Your task to perform on an android device: check out phone information Image 0: 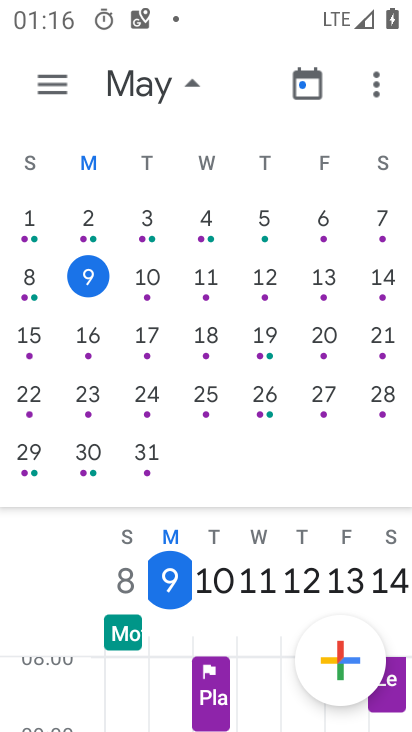
Step 0: press home button
Your task to perform on an android device: check out phone information Image 1: 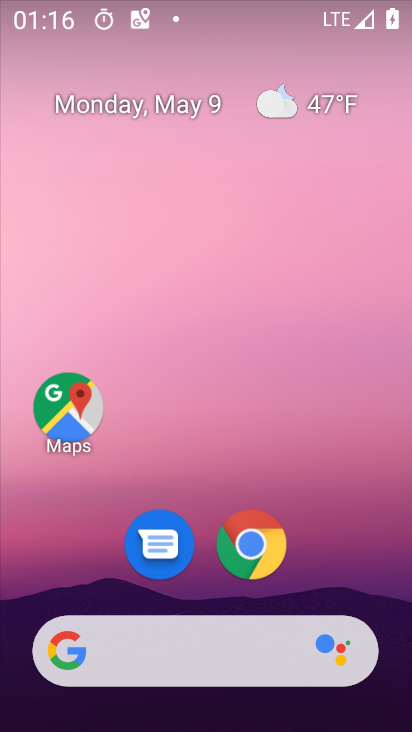
Step 1: drag from (299, 601) to (255, 11)
Your task to perform on an android device: check out phone information Image 2: 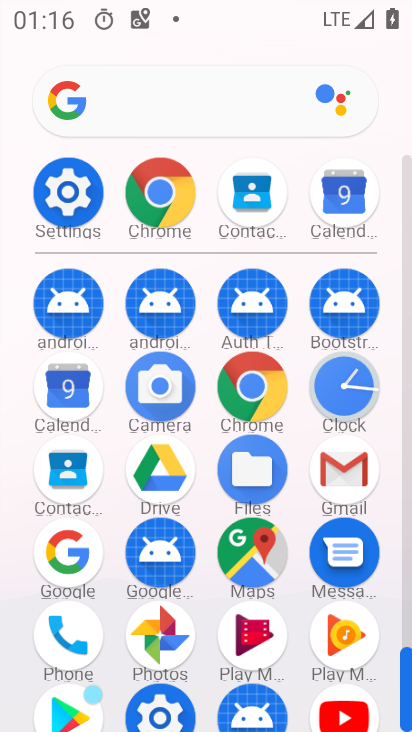
Step 2: click (171, 712)
Your task to perform on an android device: check out phone information Image 3: 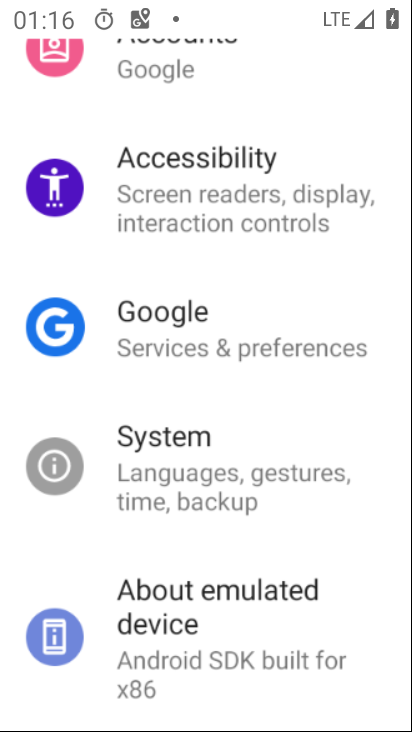
Step 3: click (274, 674)
Your task to perform on an android device: check out phone information Image 4: 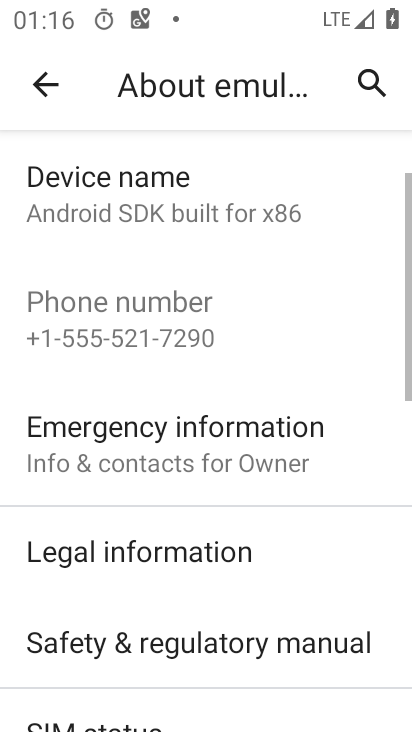
Step 4: task complete